Your task to perform on an android device: open app "Google Keep" Image 0: 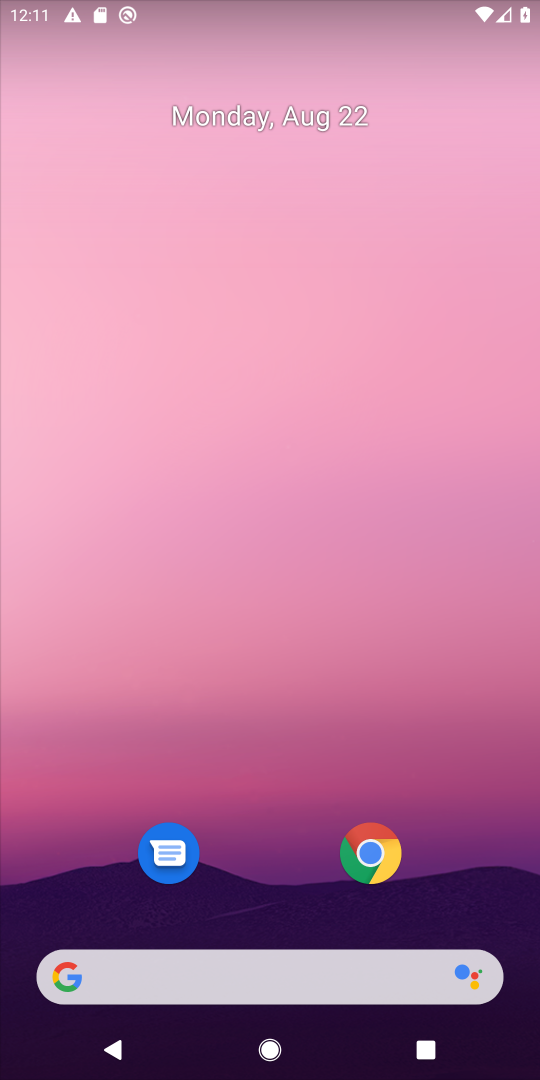
Step 0: drag from (276, 915) to (293, 589)
Your task to perform on an android device: open app "Google Keep" Image 1: 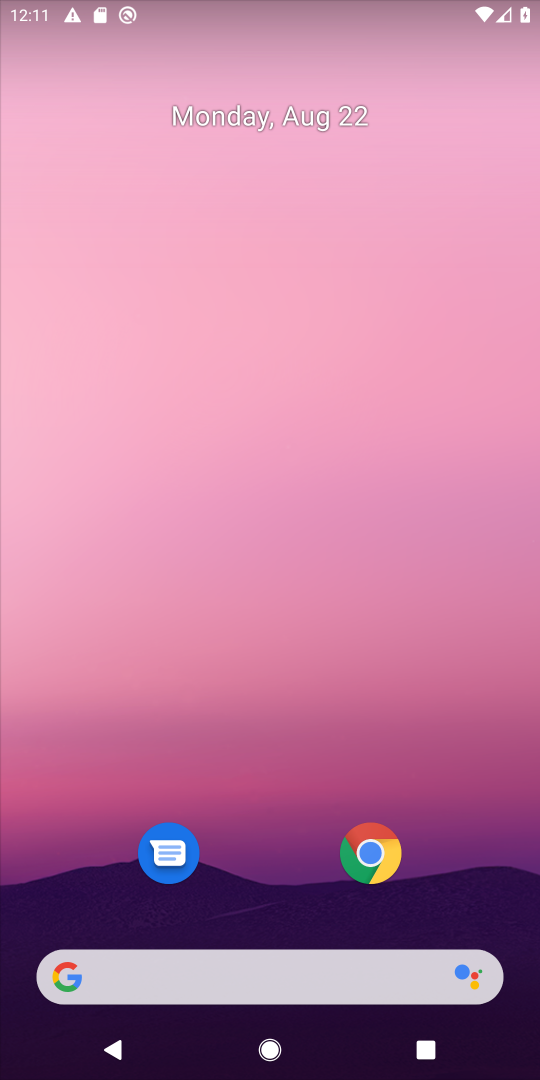
Step 1: drag from (245, 909) to (264, 196)
Your task to perform on an android device: open app "Google Keep" Image 2: 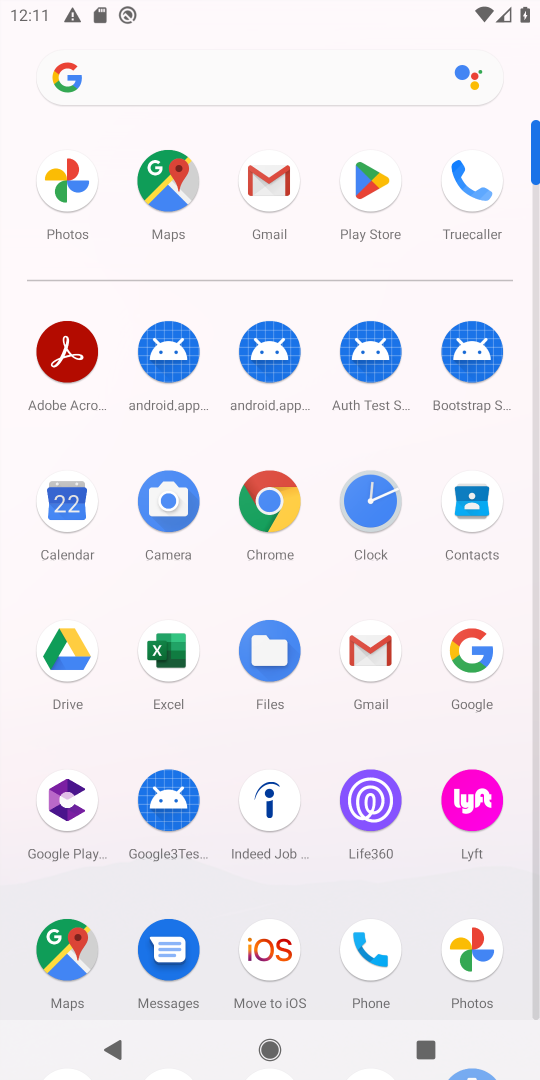
Step 2: click (357, 166)
Your task to perform on an android device: open app "Google Keep" Image 3: 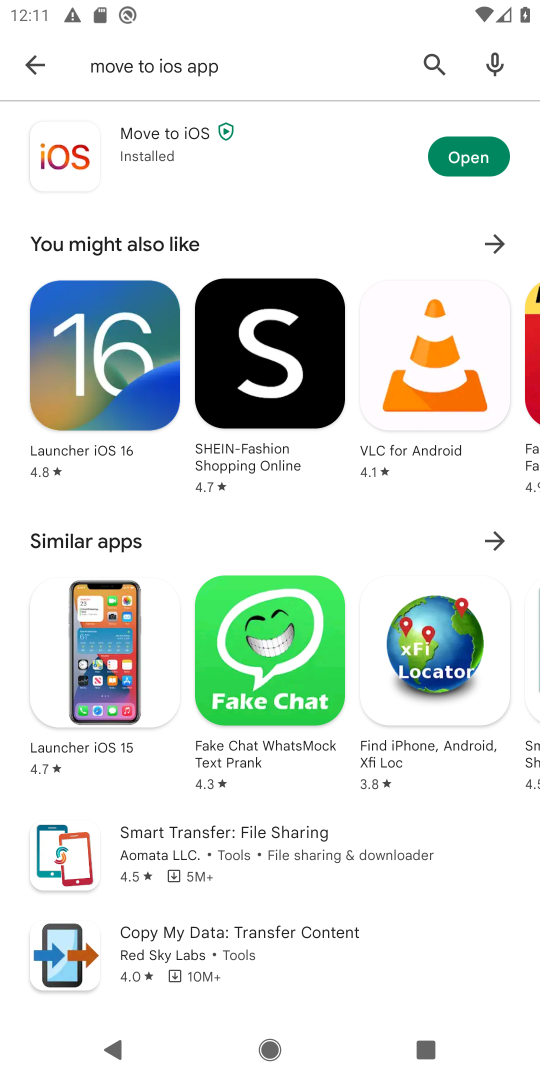
Step 3: click (24, 62)
Your task to perform on an android device: open app "Google Keep" Image 4: 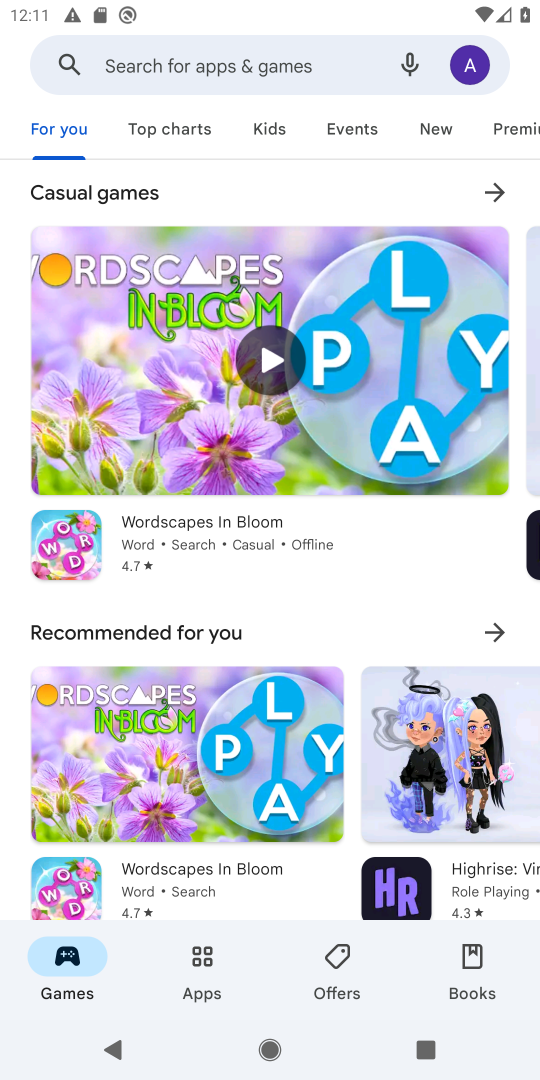
Step 4: click (212, 52)
Your task to perform on an android device: open app "Google Keep" Image 5: 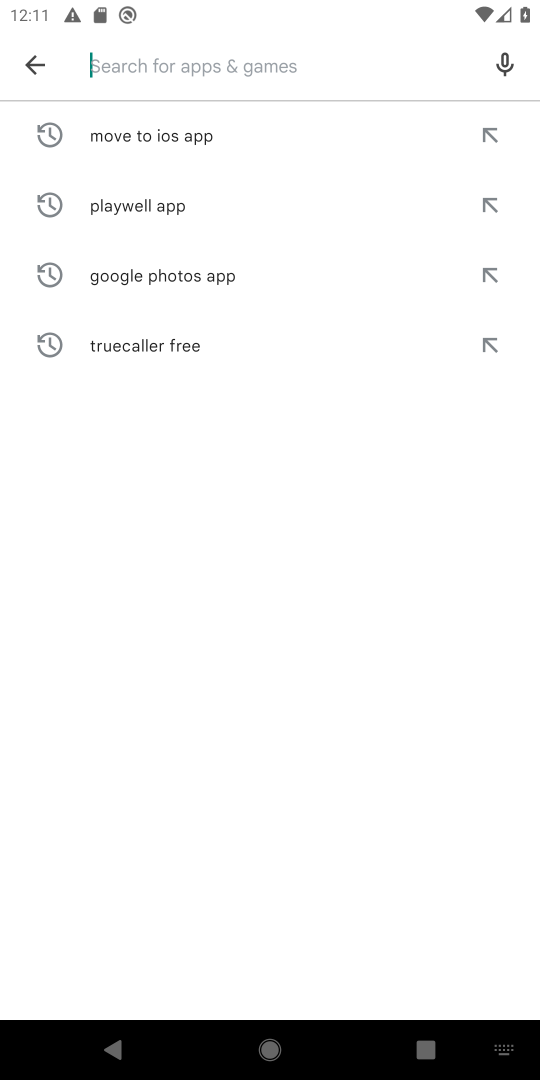
Step 5: type "google keep "
Your task to perform on an android device: open app "Google Keep" Image 6: 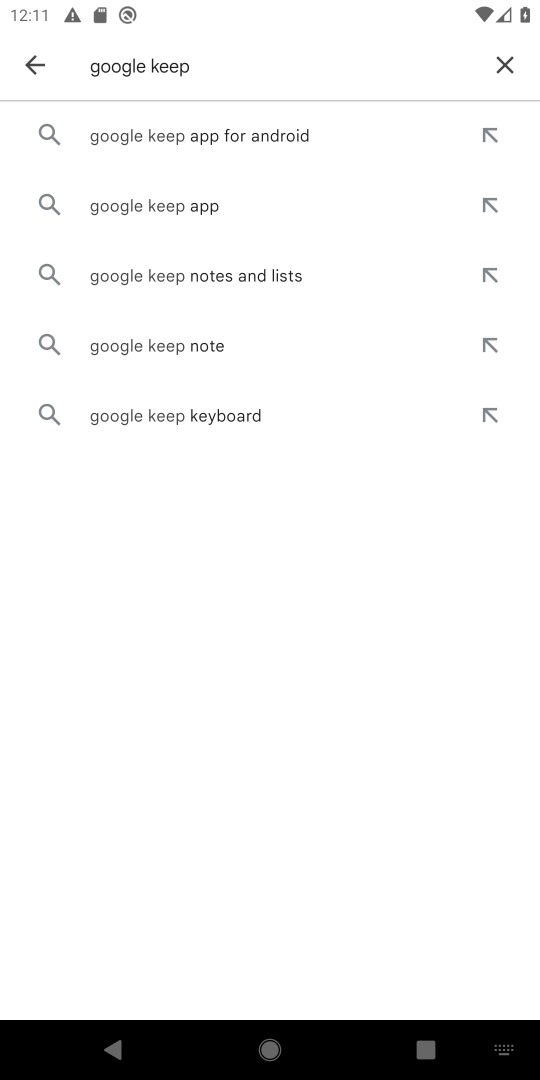
Step 6: click (165, 145)
Your task to perform on an android device: open app "Google Keep" Image 7: 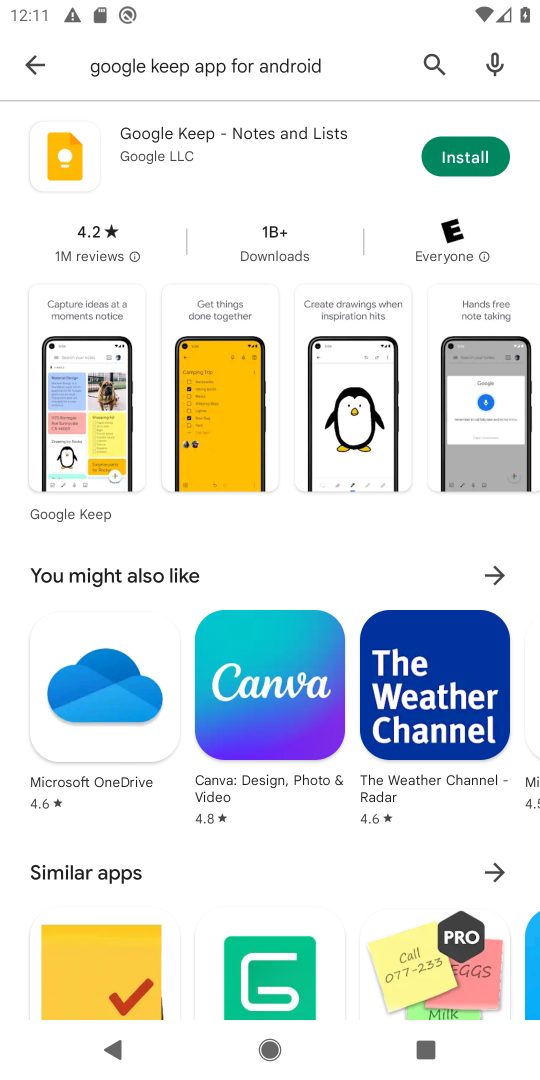
Step 7: click (462, 148)
Your task to perform on an android device: open app "Google Keep" Image 8: 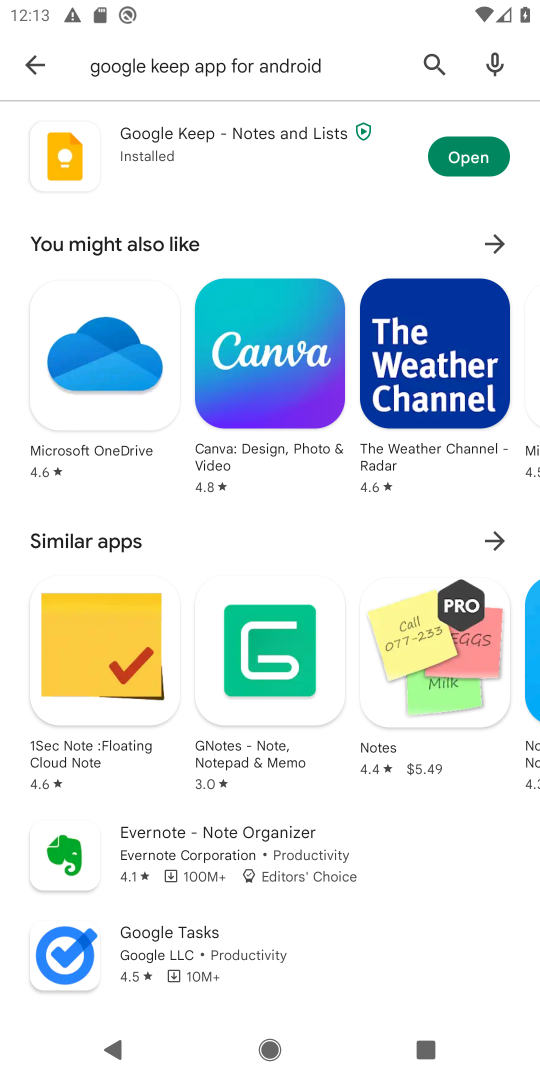
Step 8: click (462, 148)
Your task to perform on an android device: open app "Google Keep" Image 9: 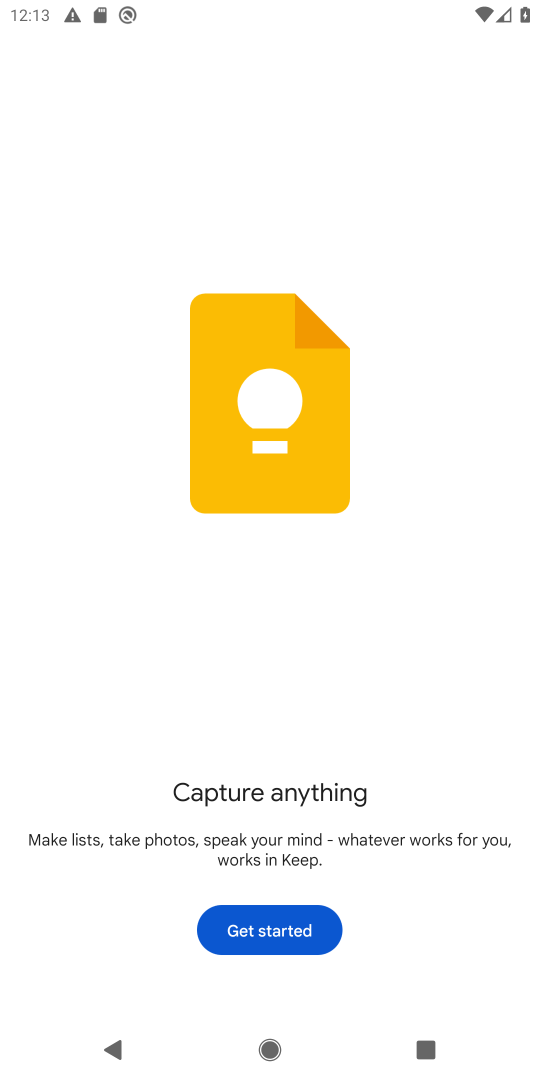
Step 9: task complete